Your task to perform on an android device: Add "logitech g pro" to the cart on amazon.com Image 0: 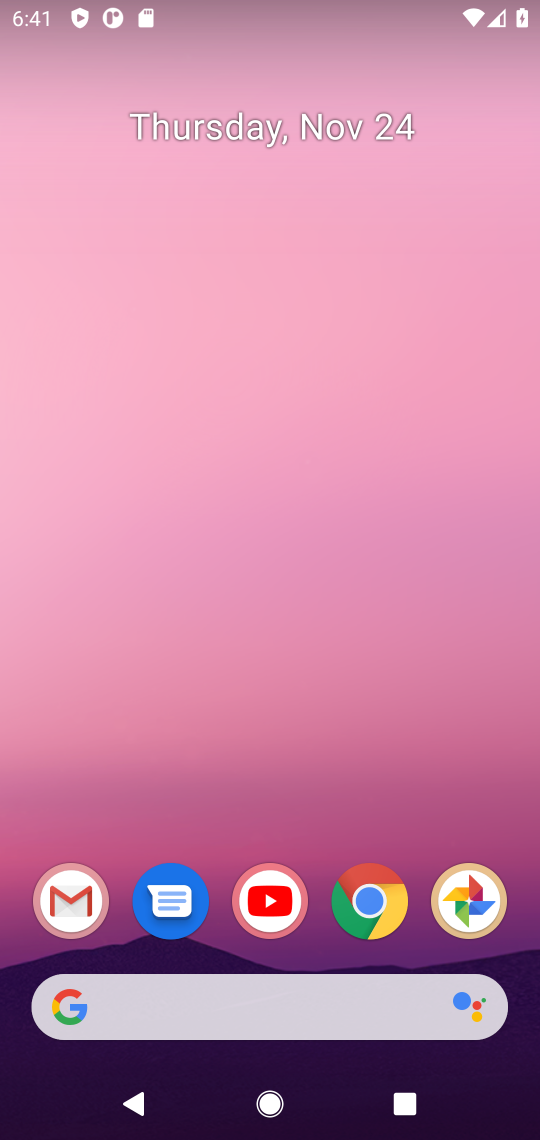
Step 0: click (377, 869)
Your task to perform on an android device: Add "logitech g pro" to the cart on amazon.com Image 1: 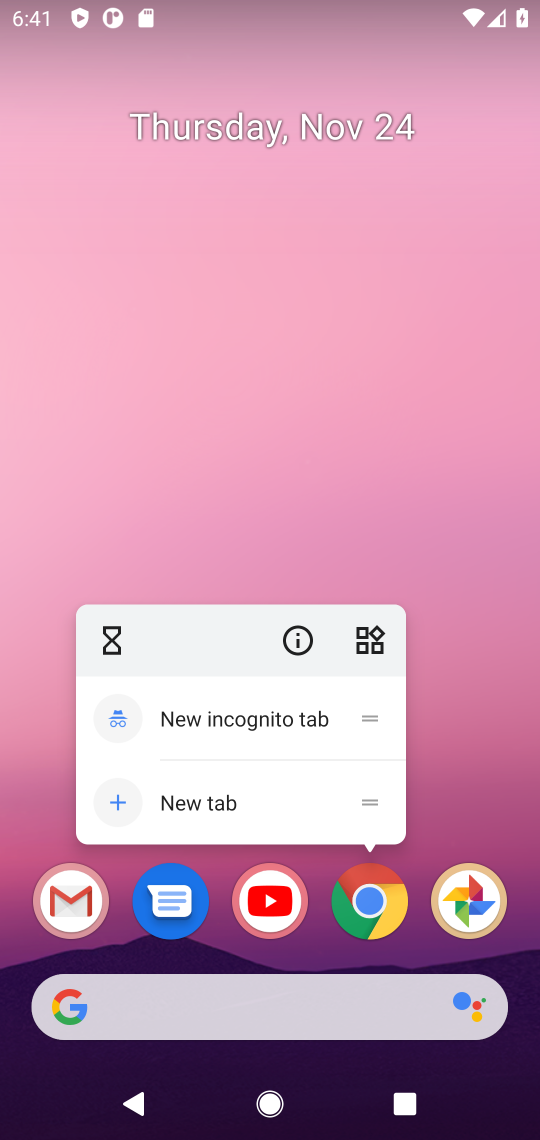
Step 1: click (369, 899)
Your task to perform on an android device: Add "logitech g pro" to the cart on amazon.com Image 2: 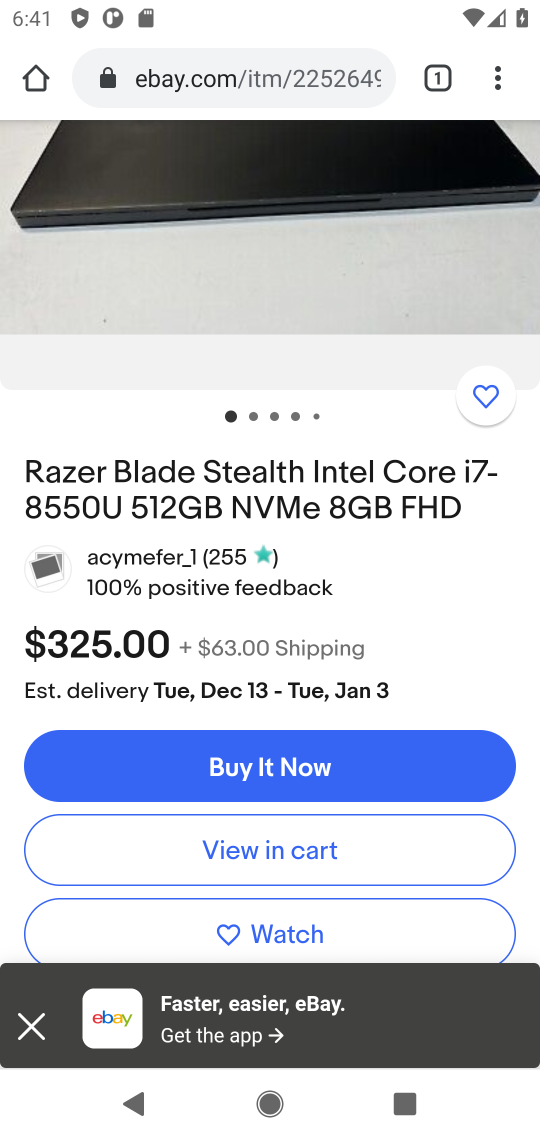
Step 2: click (243, 62)
Your task to perform on an android device: Add "logitech g pro" to the cart on amazon.com Image 3: 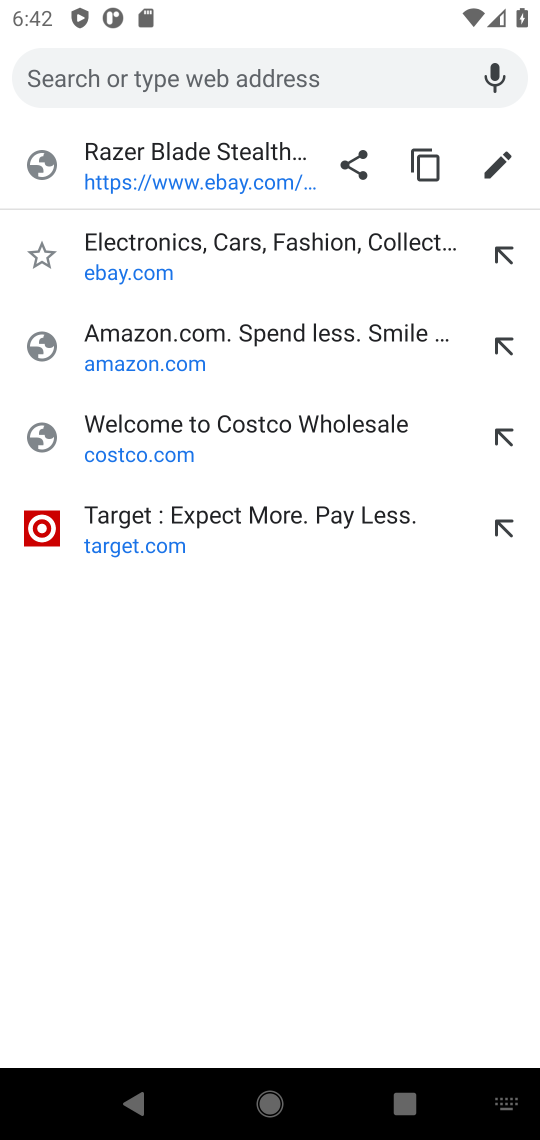
Step 3: type "amazon.com"
Your task to perform on an android device: Add "logitech g pro" to the cart on amazon.com Image 4: 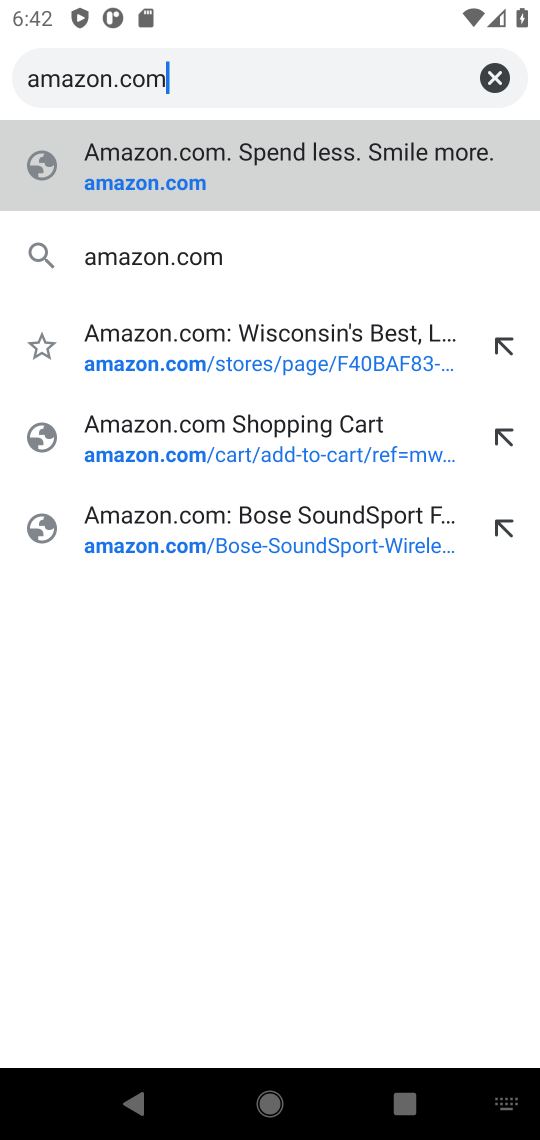
Step 4: click (252, 170)
Your task to perform on an android device: Add "logitech g pro" to the cart on amazon.com Image 5: 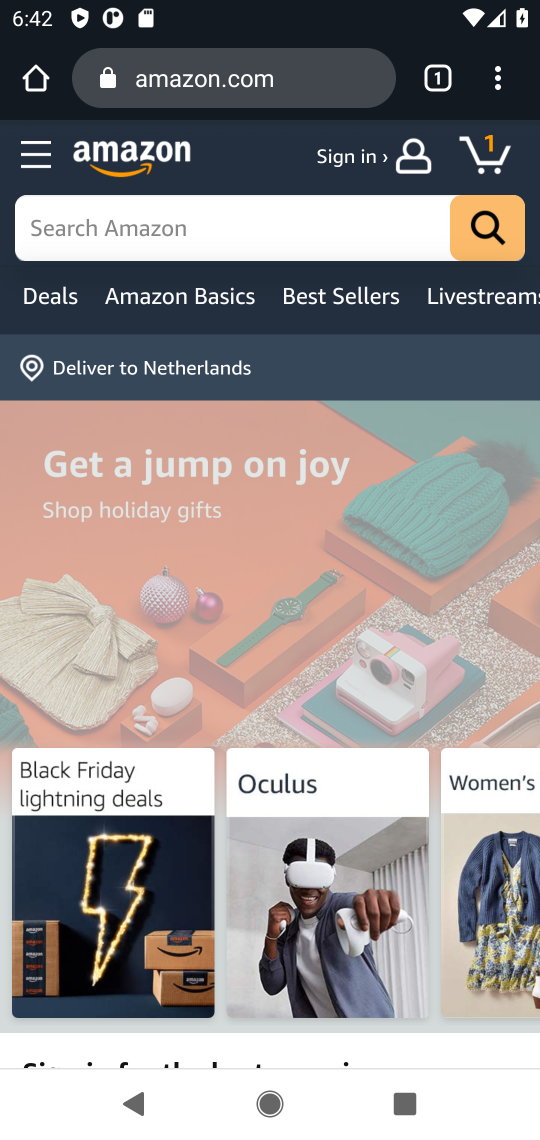
Step 5: click (184, 240)
Your task to perform on an android device: Add "logitech g pro" to the cart on amazon.com Image 6: 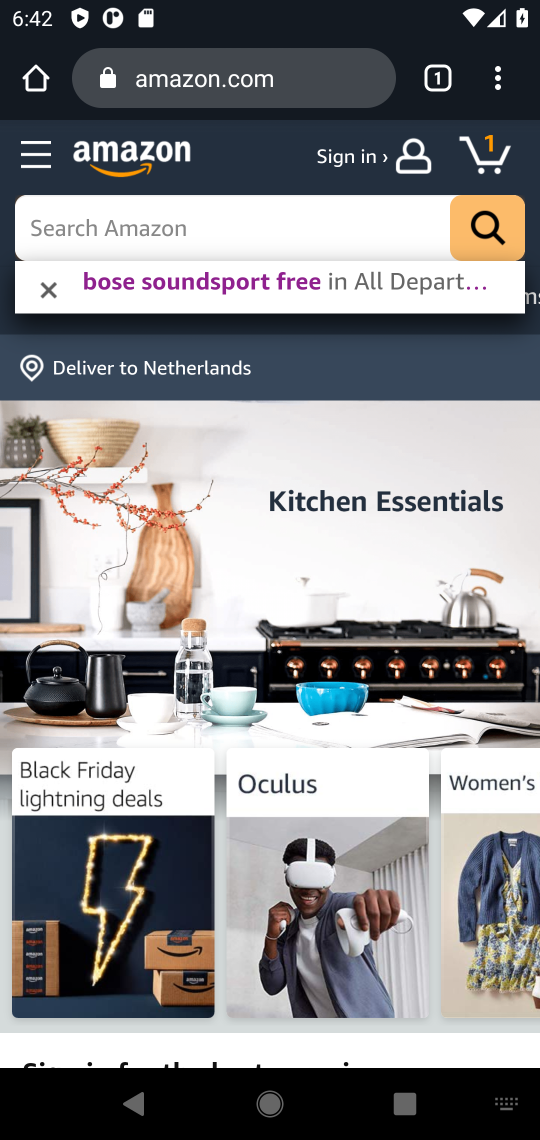
Step 6: type "logitech g pro"
Your task to perform on an android device: Add "logitech g pro" to the cart on amazon.com Image 7: 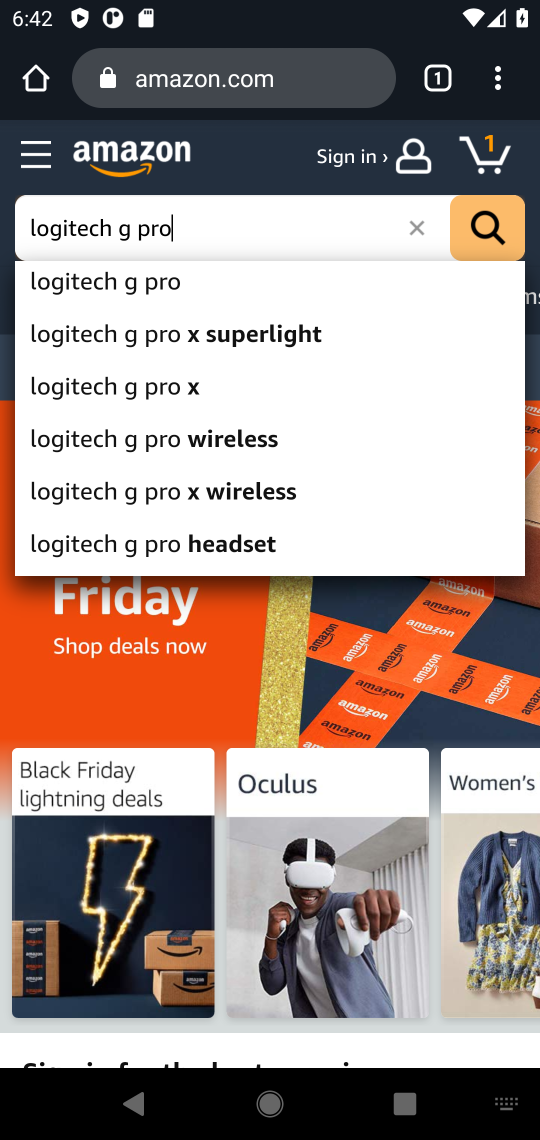
Step 7: click (136, 269)
Your task to perform on an android device: Add "logitech g pro" to the cart on amazon.com Image 8: 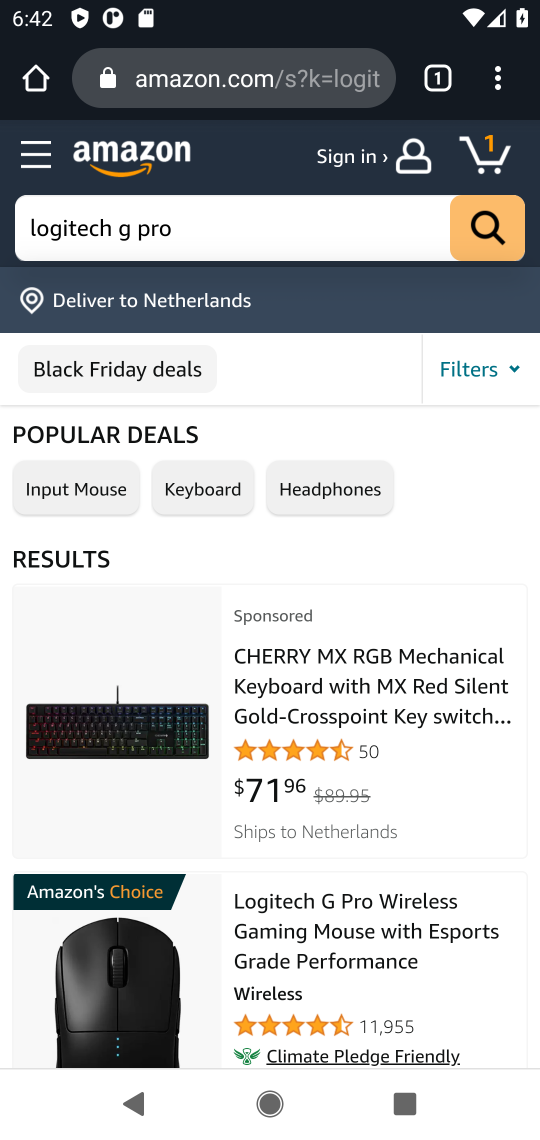
Step 8: drag from (291, 882) to (220, 487)
Your task to perform on an android device: Add "logitech g pro" to the cart on amazon.com Image 9: 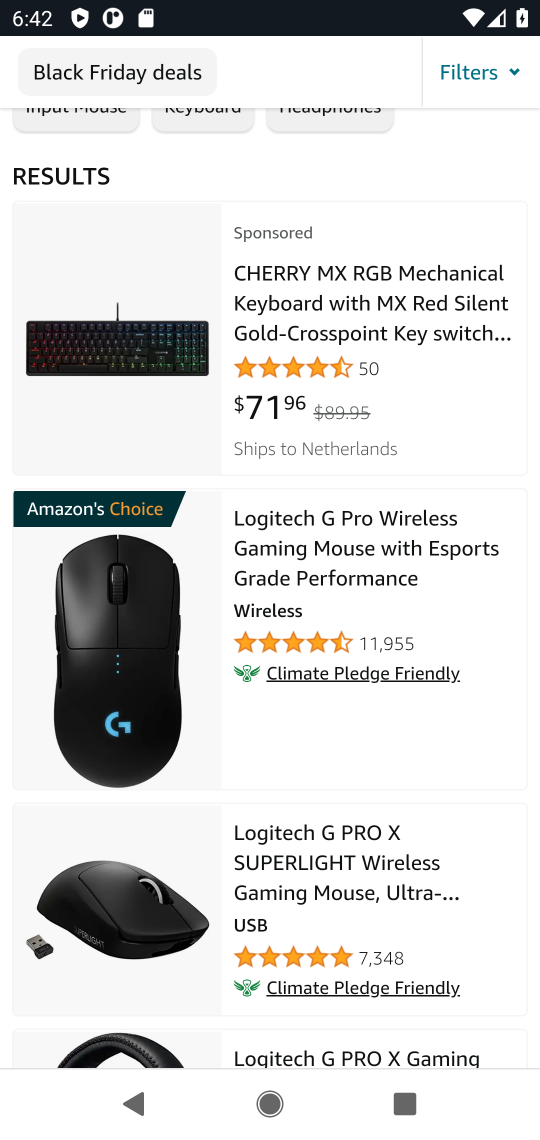
Step 9: click (124, 604)
Your task to perform on an android device: Add "logitech g pro" to the cart on amazon.com Image 10: 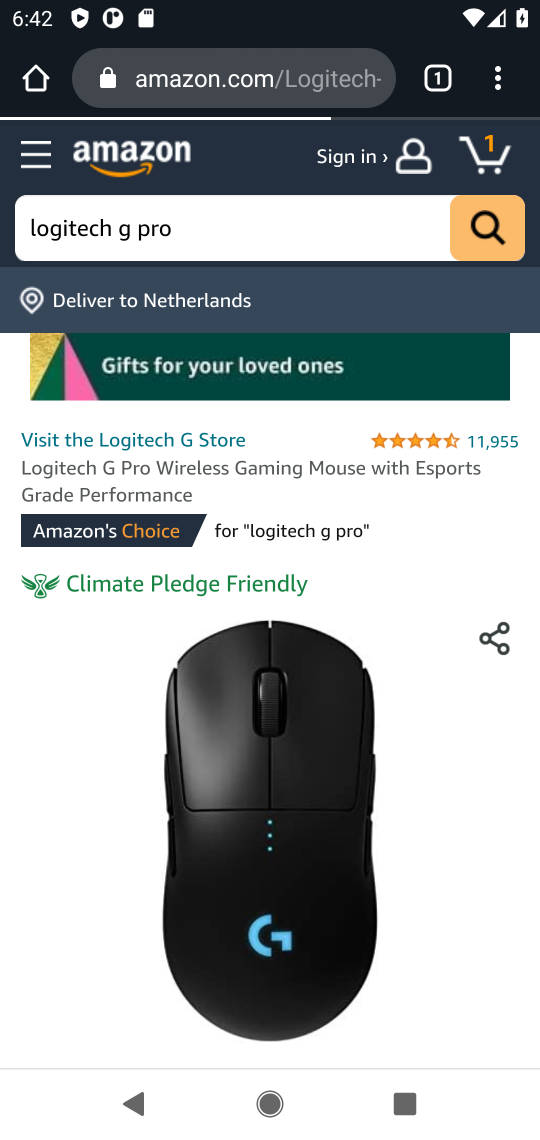
Step 10: task complete